Your task to perform on an android device: set the timer Image 0: 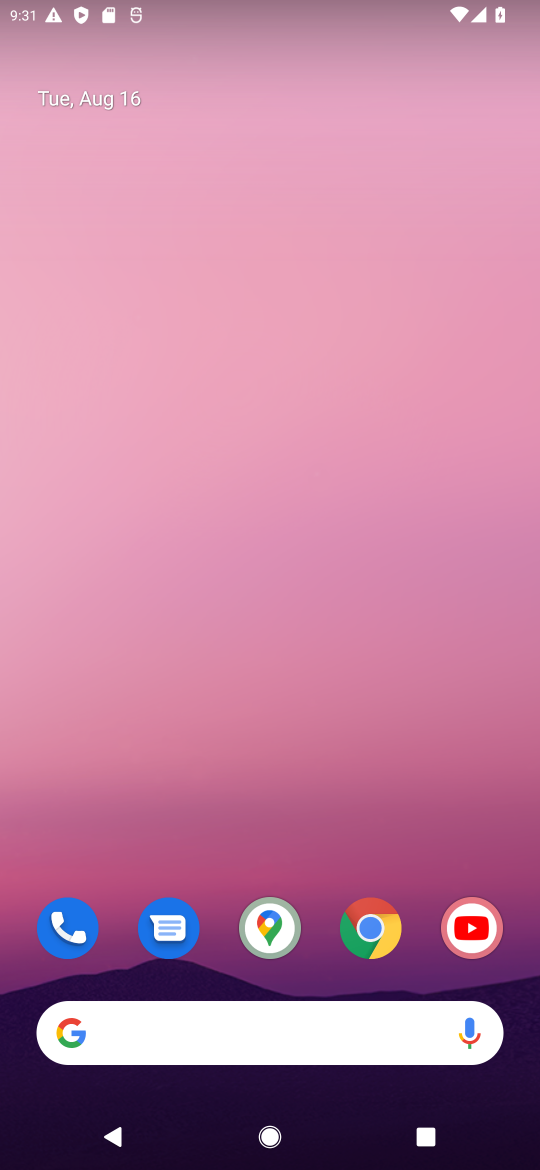
Step 0: press home button
Your task to perform on an android device: set the timer Image 1: 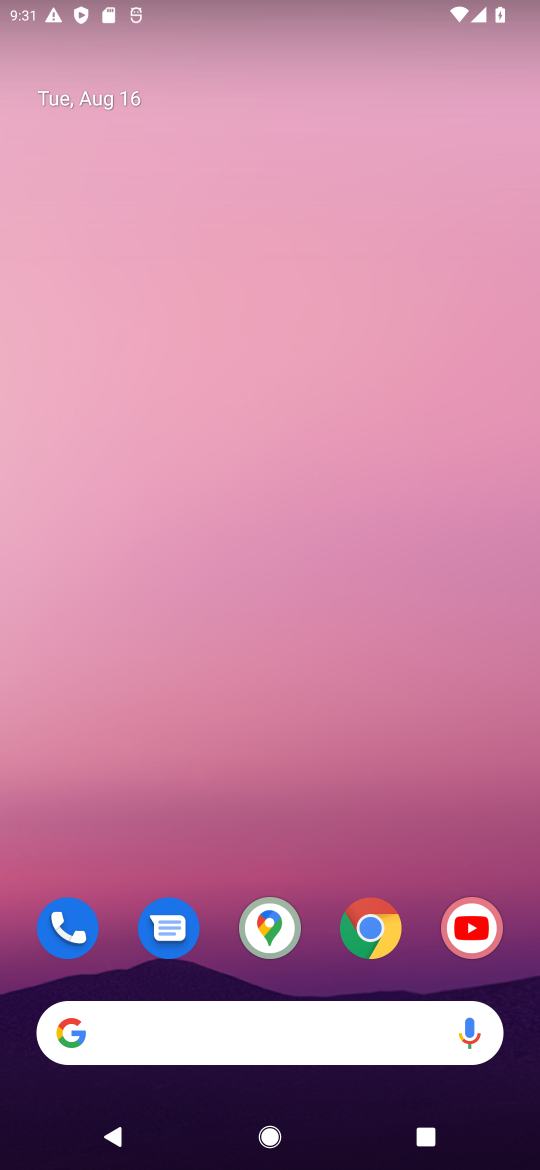
Step 1: drag from (357, 841) to (357, 131)
Your task to perform on an android device: set the timer Image 2: 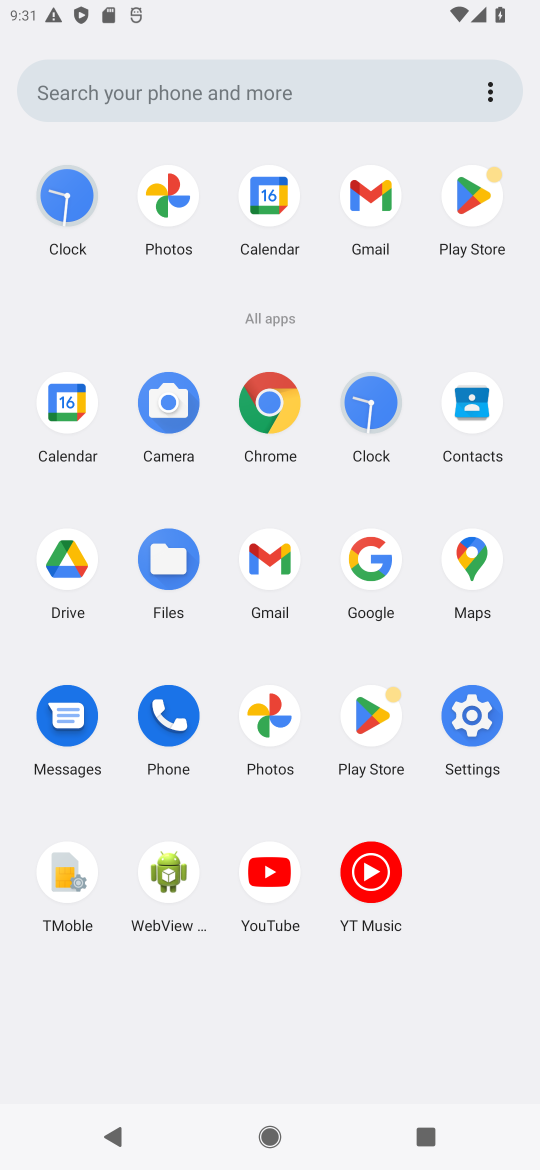
Step 2: click (367, 402)
Your task to perform on an android device: set the timer Image 3: 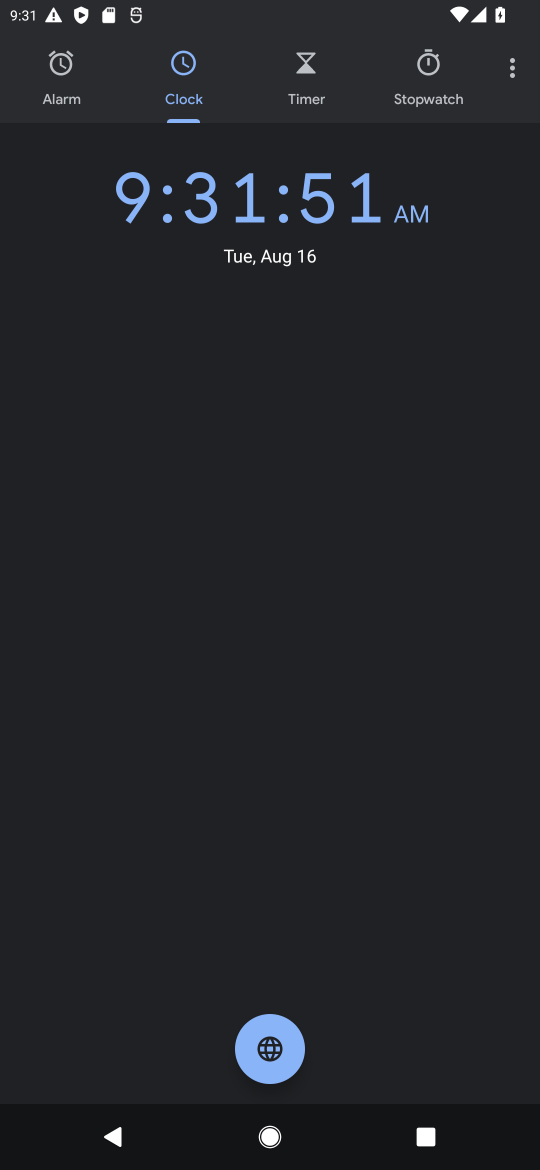
Step 3: click (290, 64)
Your task to perform on an android device: set the timer Image 4: 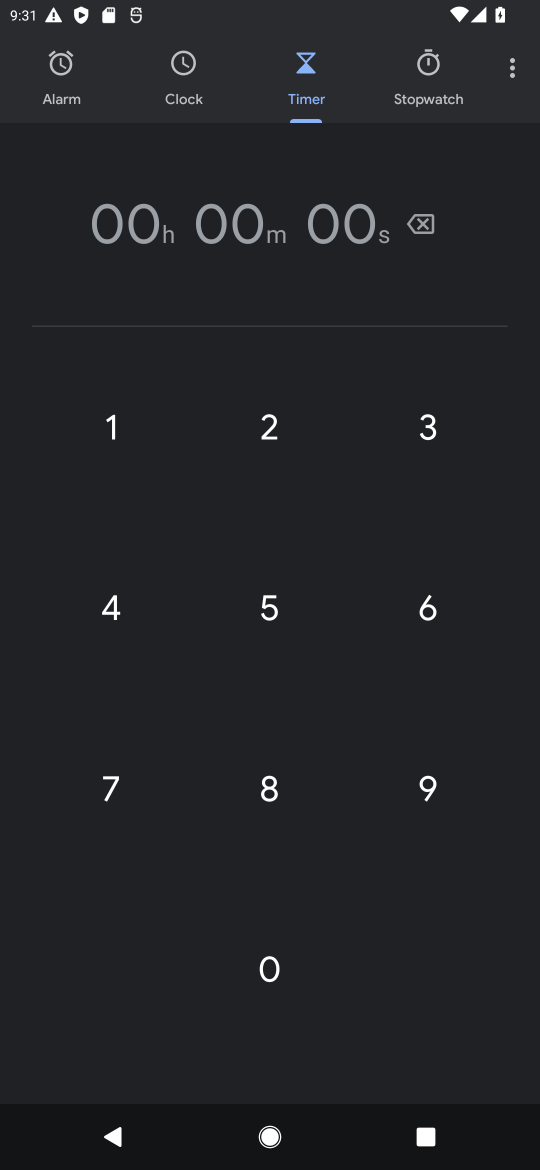
Step 4: click (262, 611)
Your task to perform on an android device: set the timer Image 5: 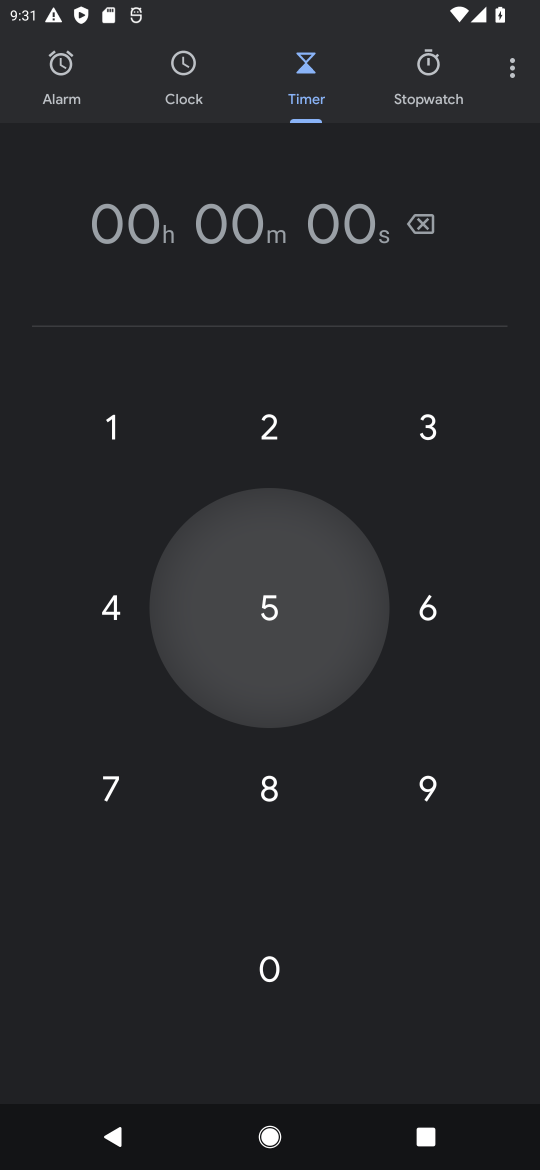
Step 5: click (275, 595)
Your task to perform on an android device: set the timer Image 6: 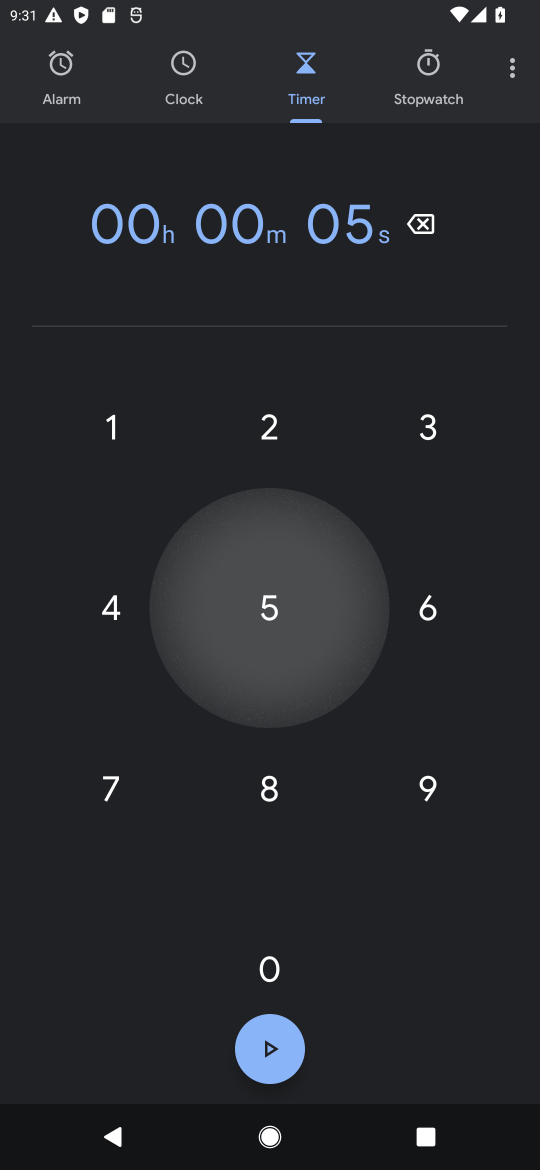
Step 6: click (272, 399)
Your task to perform on an android device: set the timer Image 7: 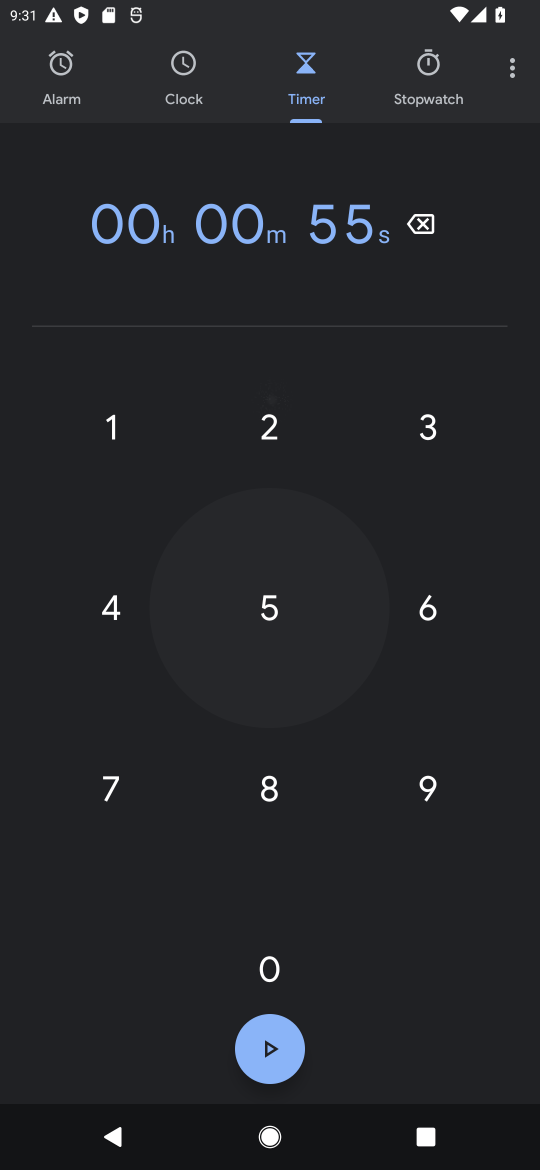
Step 7: click (266, 408)
Your task to perform on an android device: set the timer Image 8: 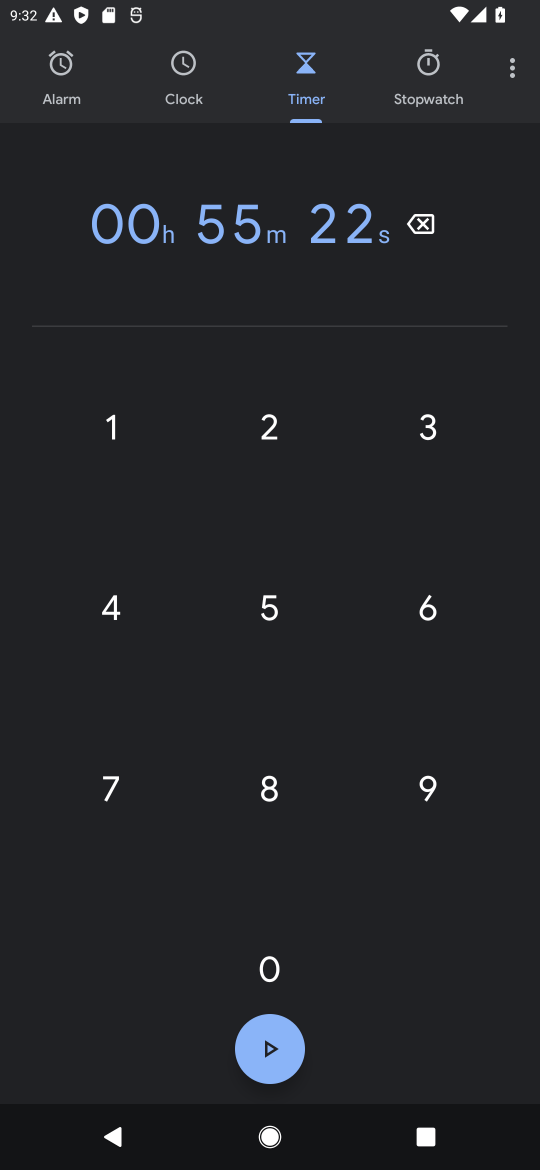
Step 8: click (112, 598)
Your task to perform on an android device: set the timer Image 9: 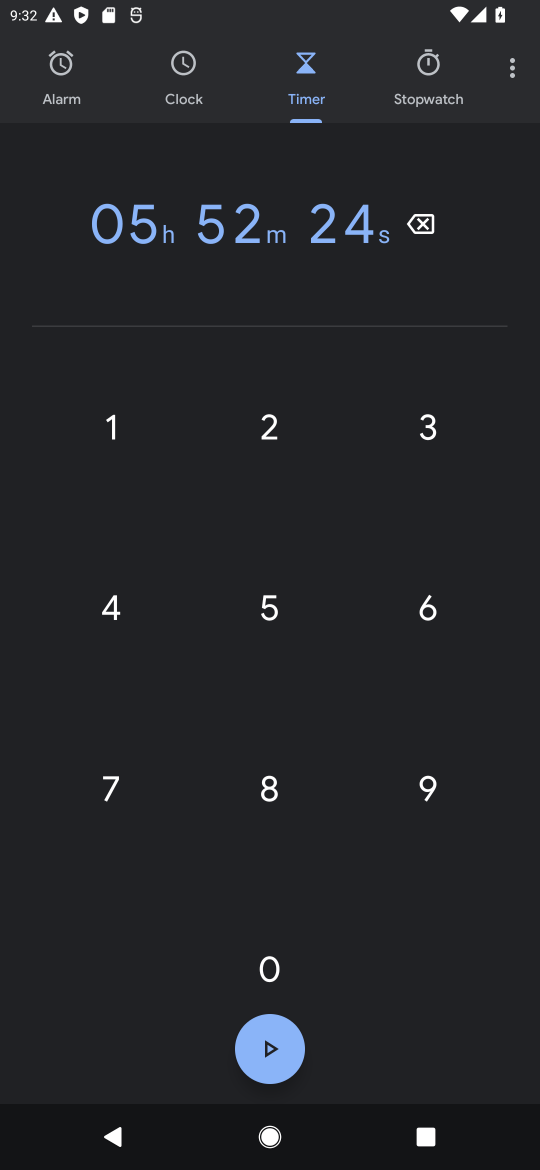
Step 9: click (270, 1036)
Your task to perform on an android device: set the timer Image 10: 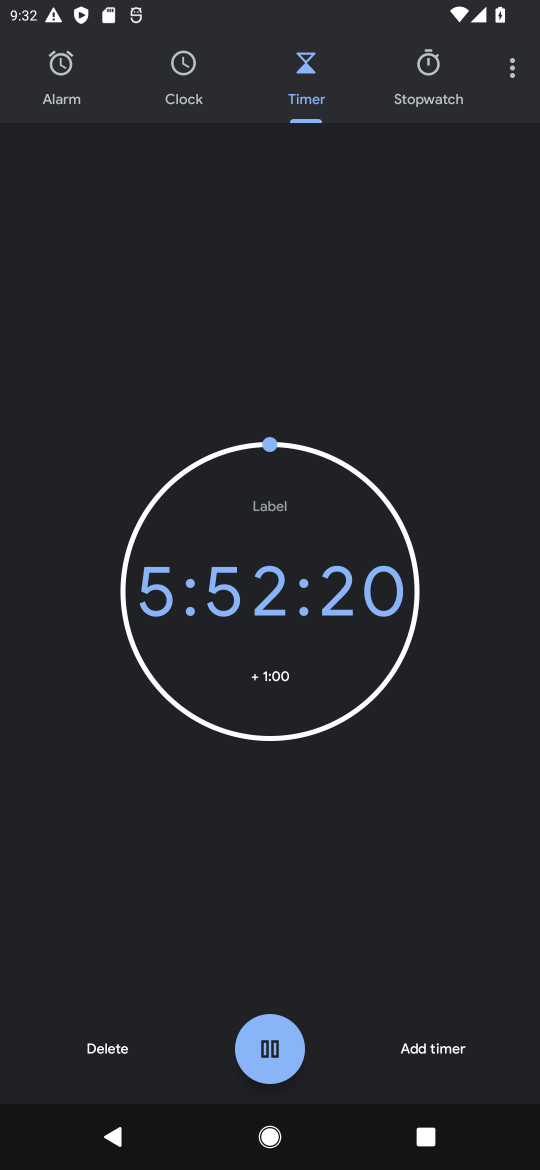
Step 10: task complete